Your task to perform on an android device: Open calendar and show me the second week of next month Image 0: 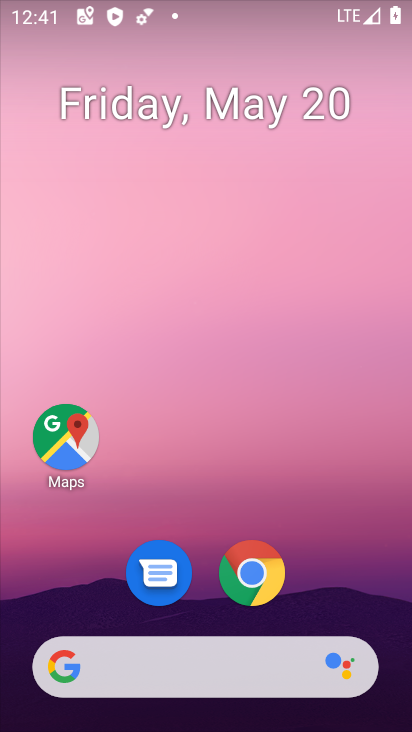
Step 0: drag from (202, 587) to (272, 239)
Your task to perform on an android device: Open calendar and show me the second week of next month Image 1: 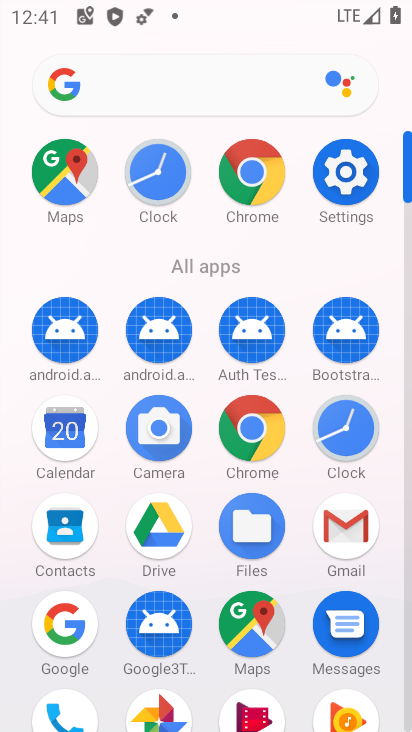
Step 1: click (66, 453)
Your task to perform on an android device: Open calendar and show me the second week of next month Image 2: 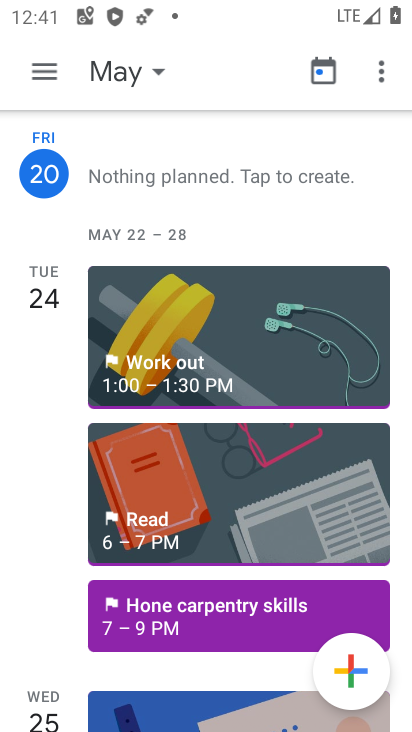
Step 2: click (47, 70)
Your task to perform on an android device: Open calendar and show me the second week of next month Image 3: 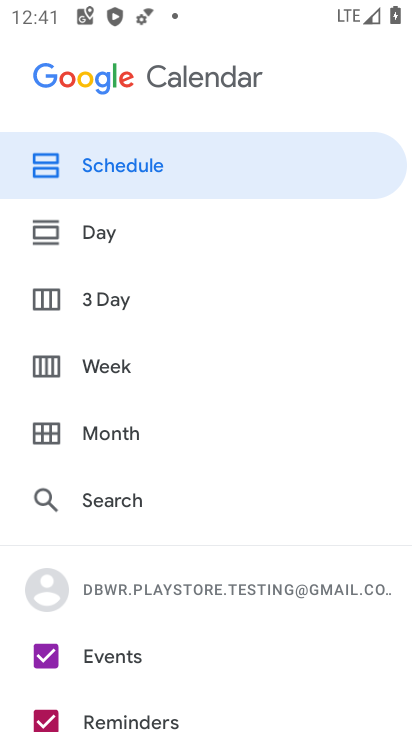
Step 3: click (124, 363)
Your task to perform on an android device: Open calendar and show me the second week of next month Image 4: 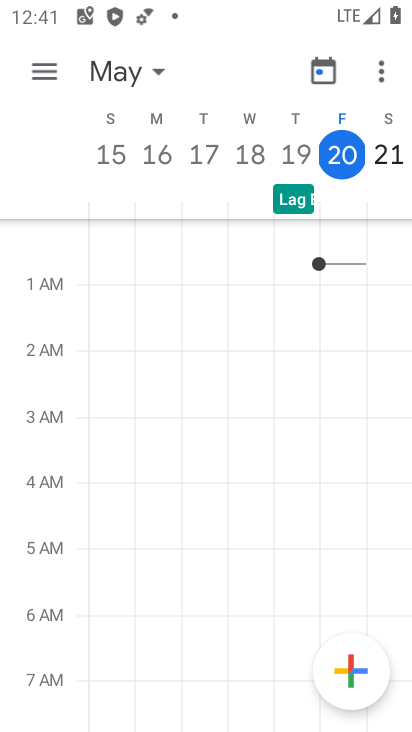
Step 4: task complete